Your task to perform on an android device: remove spam from my inbox in the gmail app Image 0: 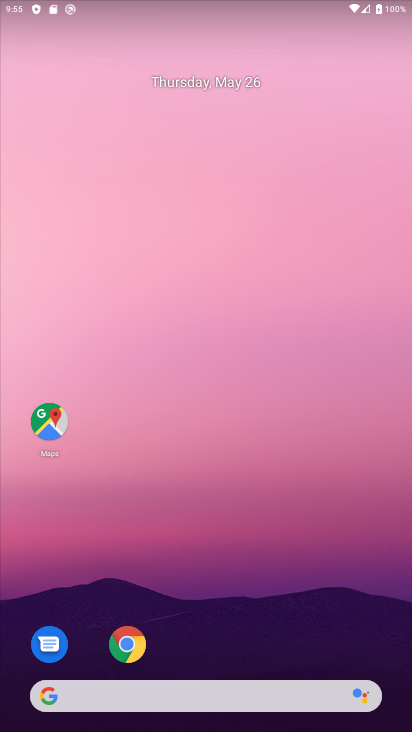
Step 0: drag from (320, 667) to (137, 114)
Your task to perform on an android device: remove spam from my inbox in the gmail app Image 1: 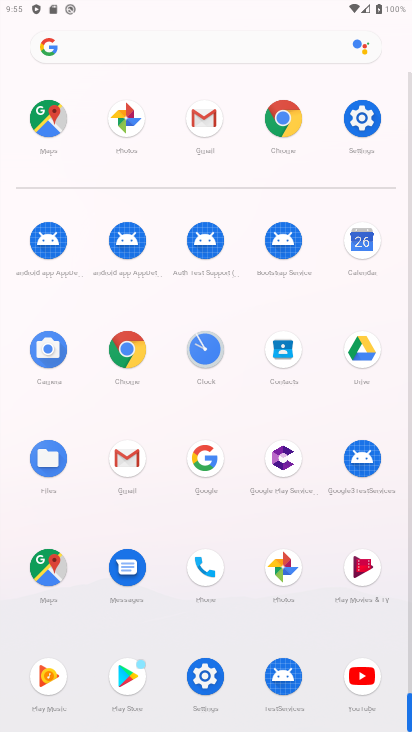
Step 1: click (126, 458)
Your task to perform on an android device: remove spam from my inbox in the gmail app Image 2: 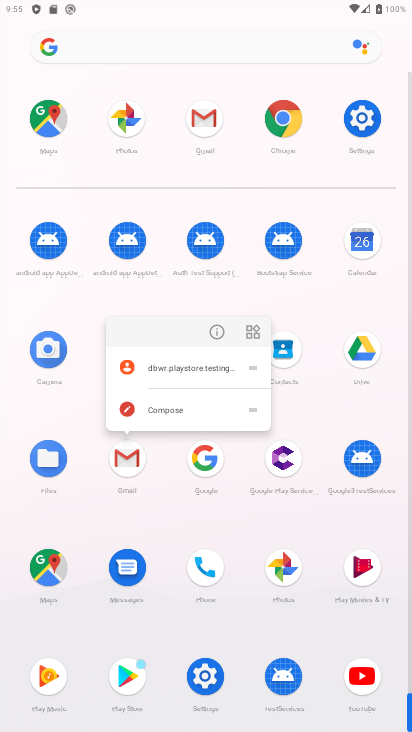
Step 2: click (130, 456)
Your task to perform on an android device: remove spam from my inbox in the gmail app Image 3: 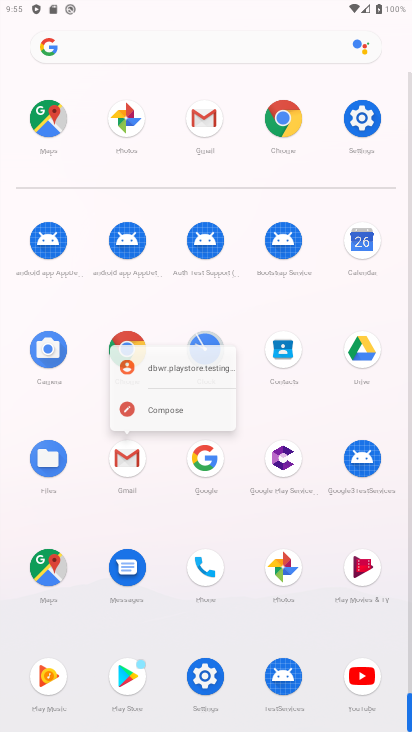
Step 3: click (138, 451)
Your task to perform on an android device: remove spam from my inbox in the gmail app Image 4: 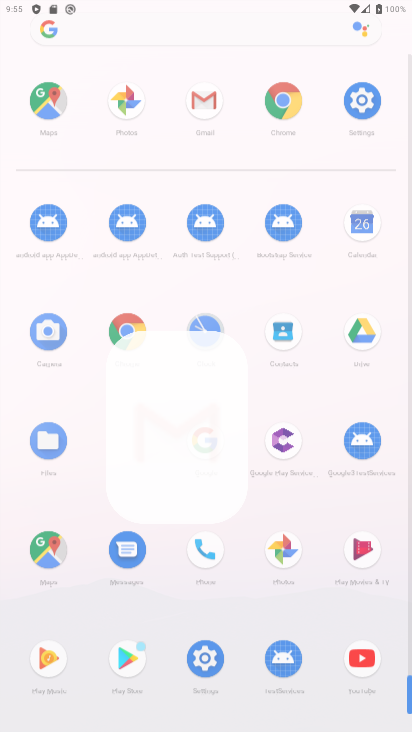
Step 4: click (138, 451)
Your task to perform on an android device: remove spam from my inbox in the gmail app Image 5: 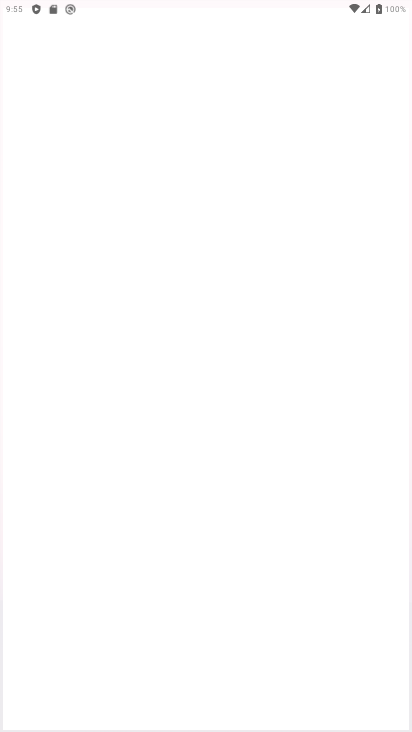
Step 5: click (138, 451)
Your task to perform on an android device: remove spam from my inbox in the gmail app Image 6: 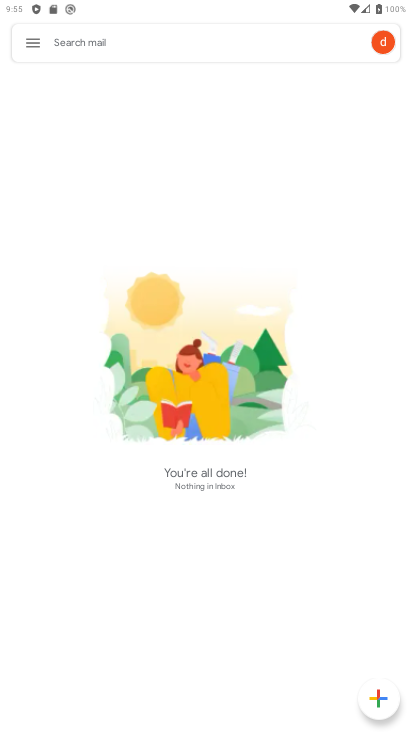
Step 6: click (32, 45)
Your task to perform on an android device: remove spam from my inbox in the gmail app Image 7: 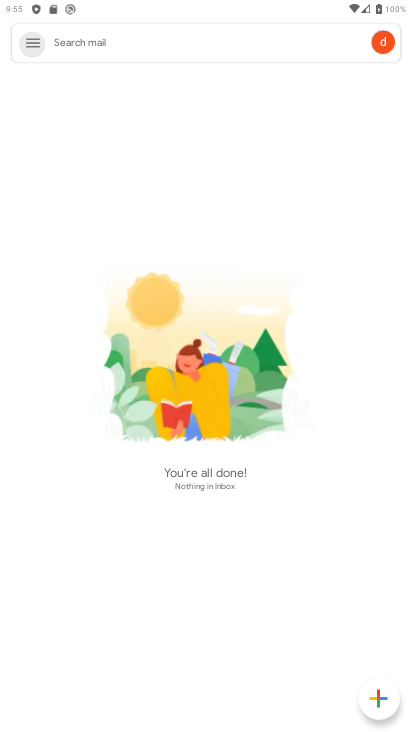
Step 7: click (33, 45)
Your task to perform on an android device: remove spam from my inbox in the gmail app Image 8: 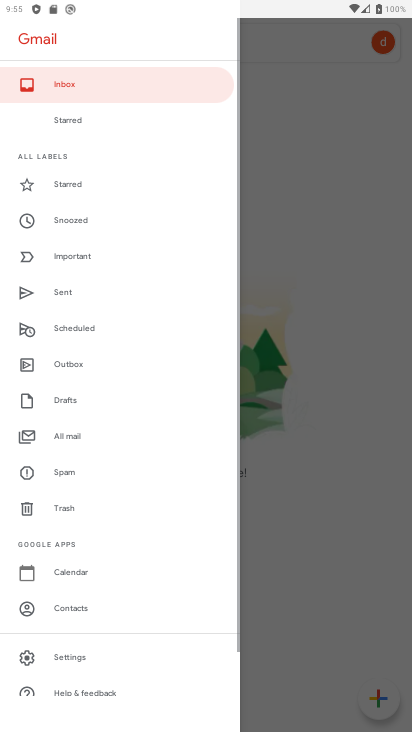
Step 8: click (43, 50)
Your task to perform on an android device: remove spam from my inbox in the gmail app Image 9: 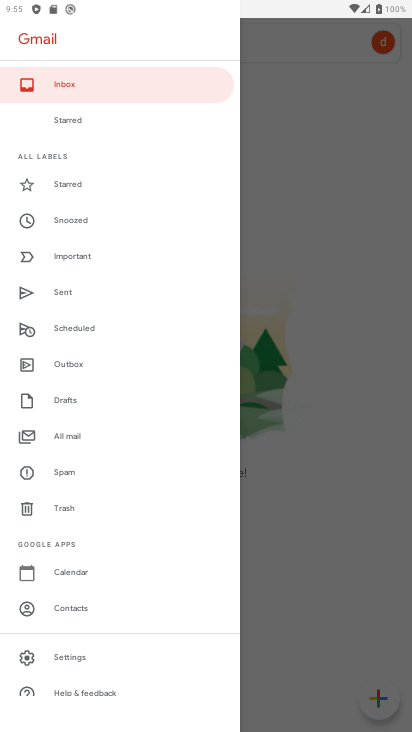
Step 9: click (72, 469)
Your task to perform on an android device: remove spam from my inbox in the gmail app Image 10: 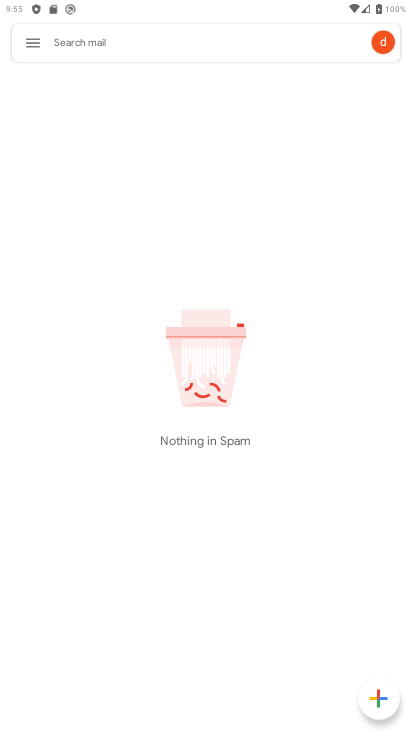
Step 10: task complete